Your task to perform on an android device: Open Google Chrome Image 0: 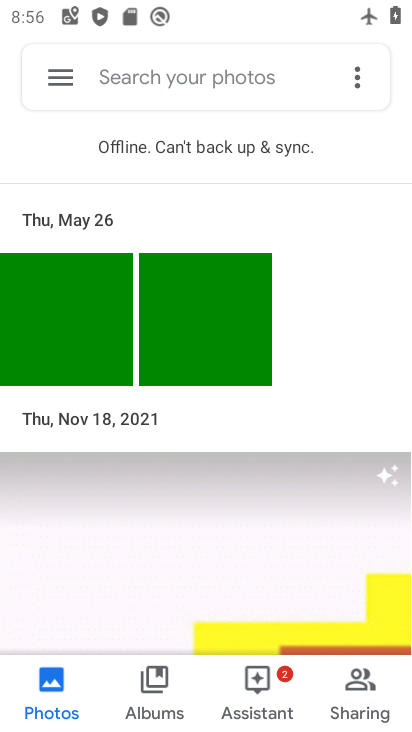
Step 0: press home button
Your task to perform on an android device: Open Google Chrome Image 1: 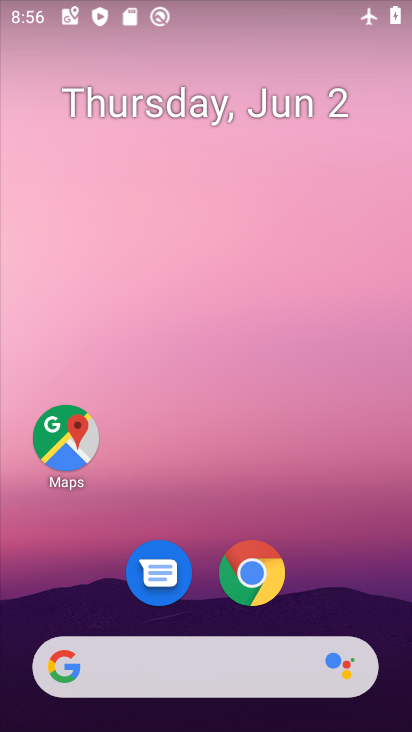
Step 1: click (241, 577)
Your task to perform on an android device: Open Google Chrome Image 2: 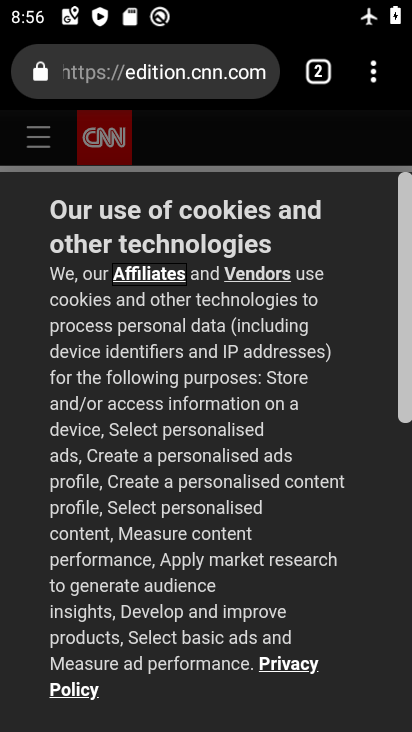
Step 2: task complete